Your task to perform on an android device: change keyboard looks Image 0: 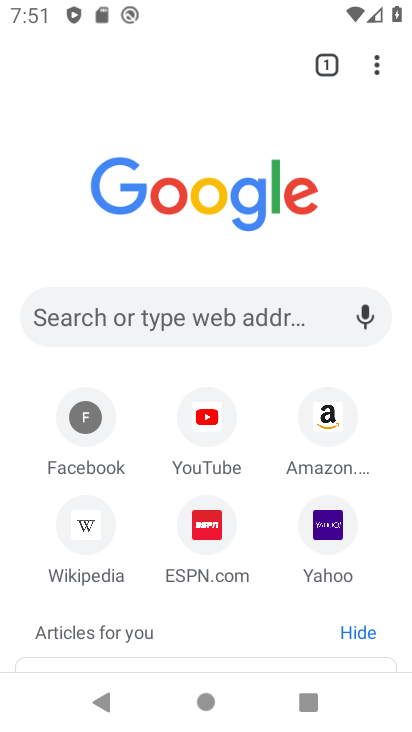
Step 0: press home button
Your task to perform on an android device: change keyboard looks Image 1: 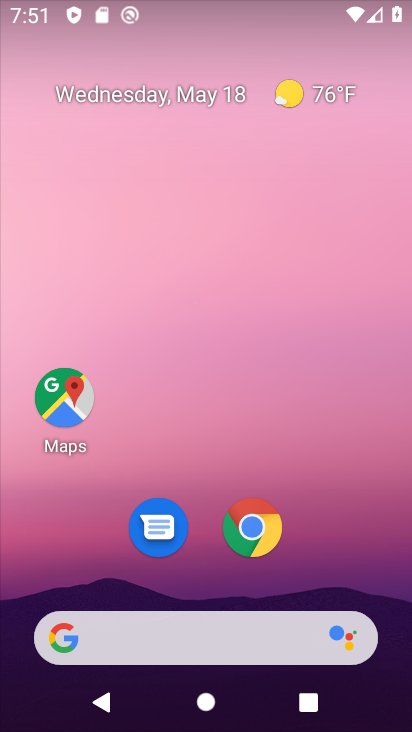
Step 1: drag from (393, 693) to (302, 144)
Your task to perform on an android device: change keyboard looks Image 2: 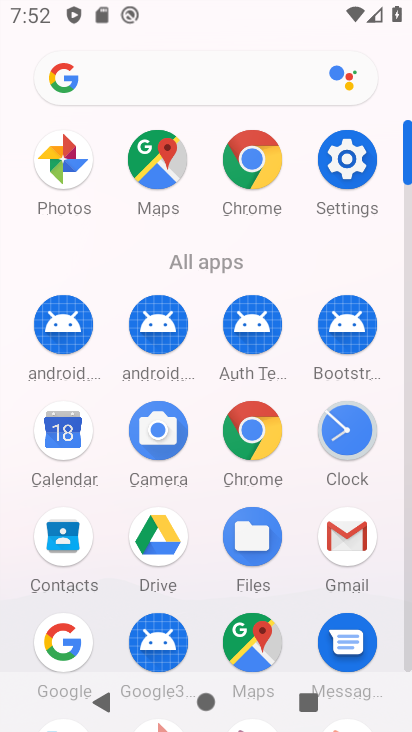
Step 2: click (343, 168)
Your task to perform on an android device: change keyboard looks Image 3: 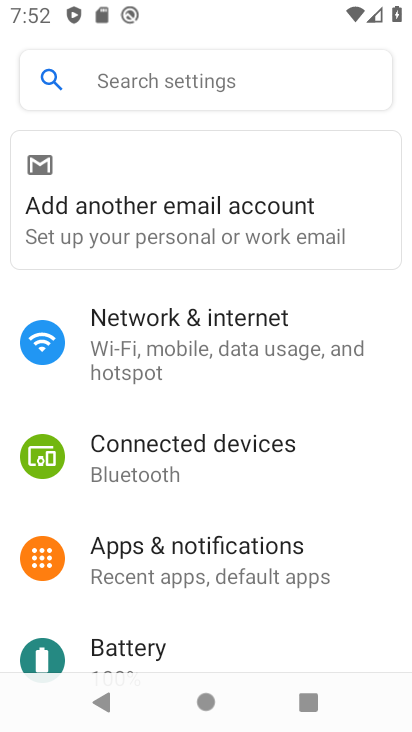
Step 3: drag from (356, 649) to (322, 221)
Your task to perform on an android device: change keyboard looks Image 4: 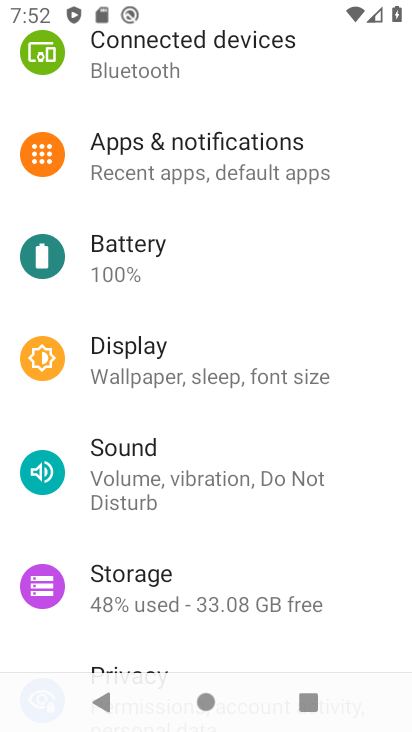
Step 4: drag from (369, 645) to (256, 31)
Your task to perform on an android device: change keyboard looks Image 5: 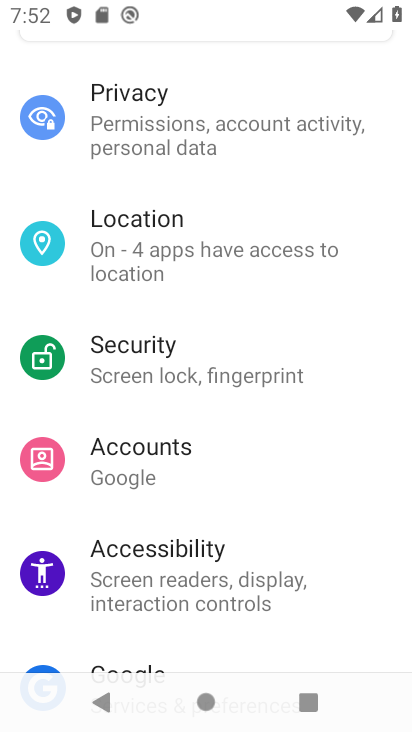
Step 5: drag from (358, 639) to (356, 182)
Your task to perform on an android device: change keyboard looks Image 6: 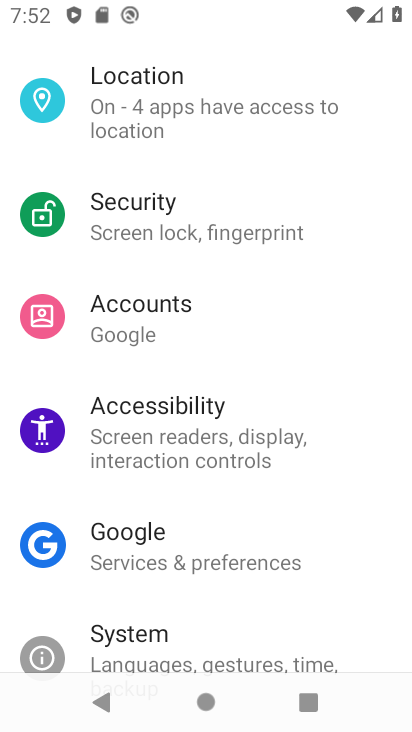
Step 6: click (126, 636)
Your task to perform on an android device: change keyboard looks Image 7: 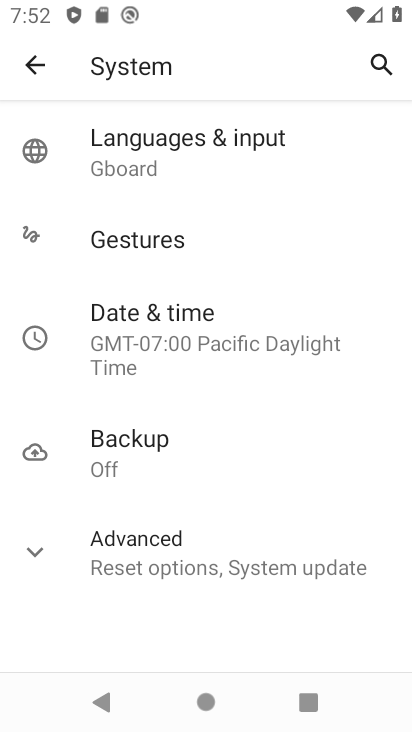
Step 7: click (112, 139)
Your task to perform on an android device: change keyboard looks Image 8: 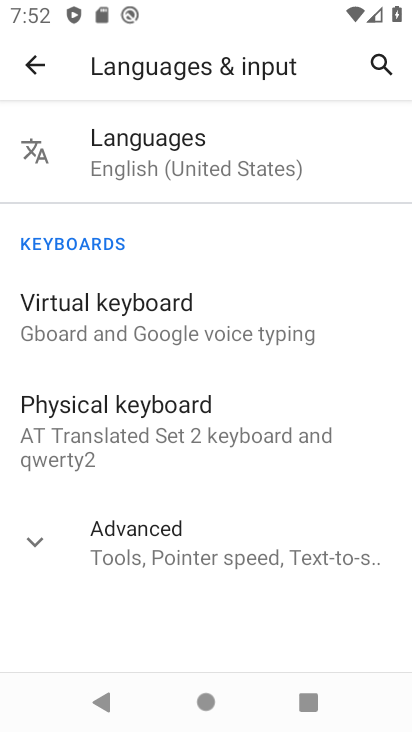
Step 8: click (97, 307)
Your task to perform on an android device: change keyboard looks Image 9: 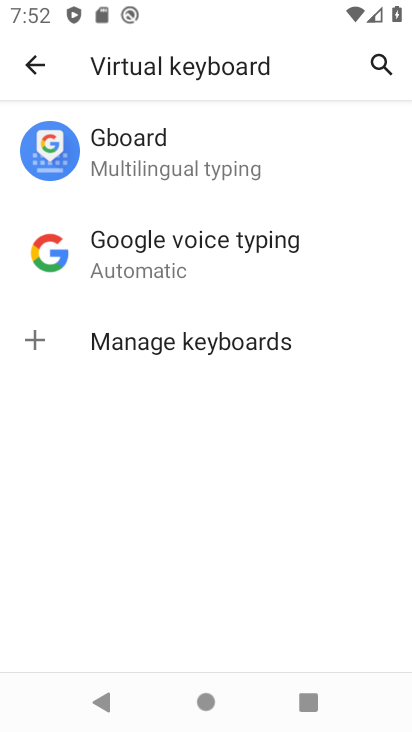
Step 9: click (108, 145)
Your task to perform on an android device: change keyboard looks Image 10: 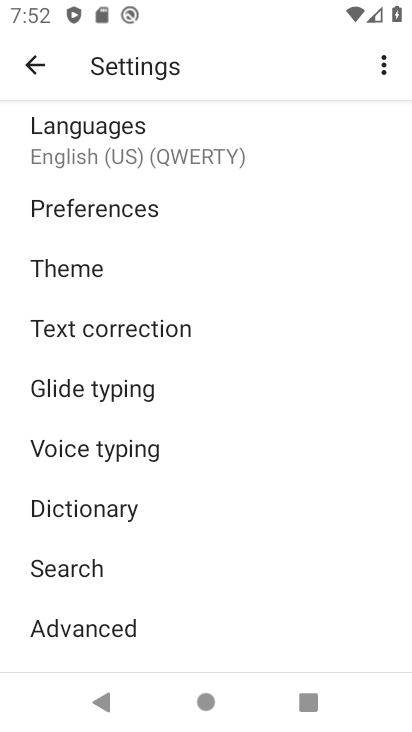
Step 10: drag from (251, 626) to (280, 168)
Your task to perform on an android device: change keyboard looks Image 11: 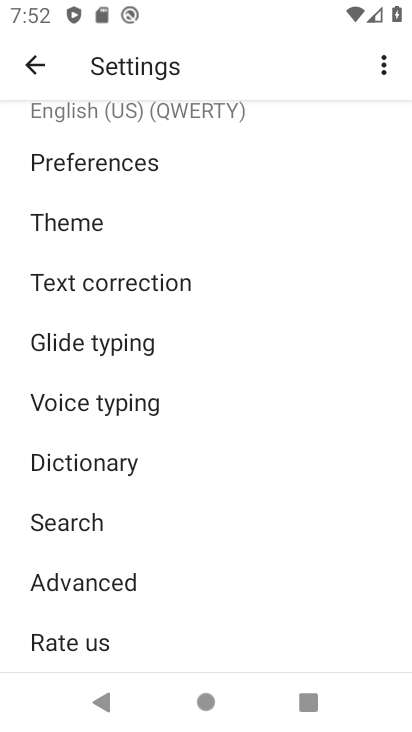
Step 11: click (329, 325)
Your task to perform on an android device: change keyboard looks Image 12: 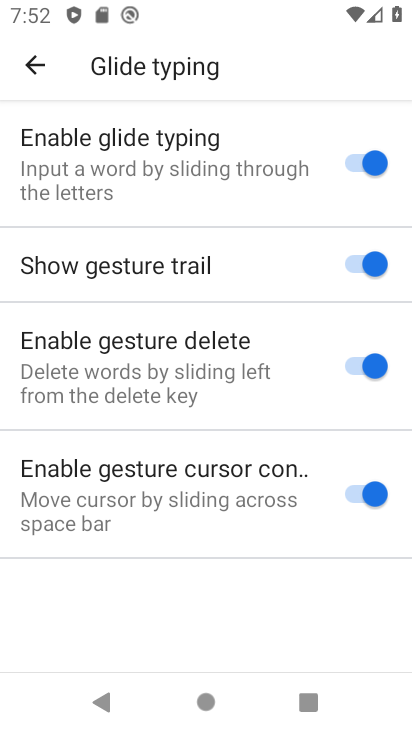
Step 12: click (361, 601)
Your task to perform on an android device: change keyboard looks Image 13: 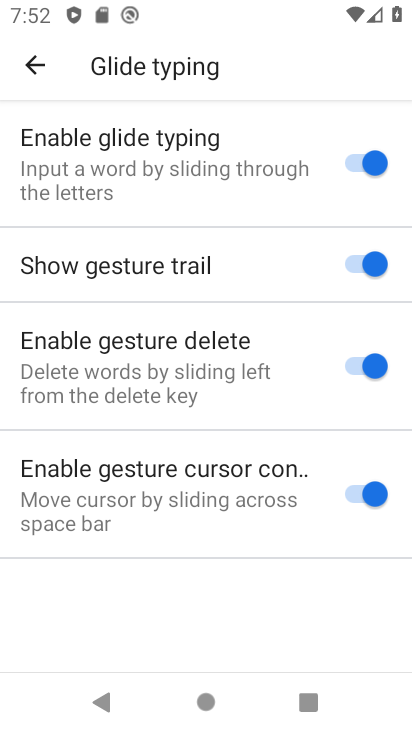
Step 13: click (39, 64)
Your task to perform on an android device: change keyboard looks Image 14: 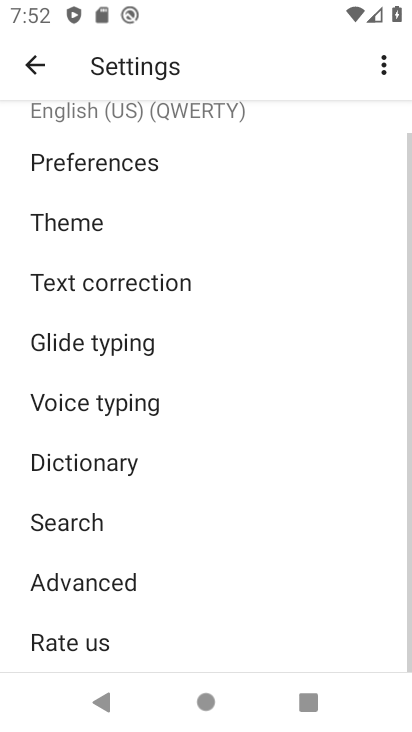
Step 14: click (57, 221)
Your task to perform on an android device: change keyboard looks Image 15: 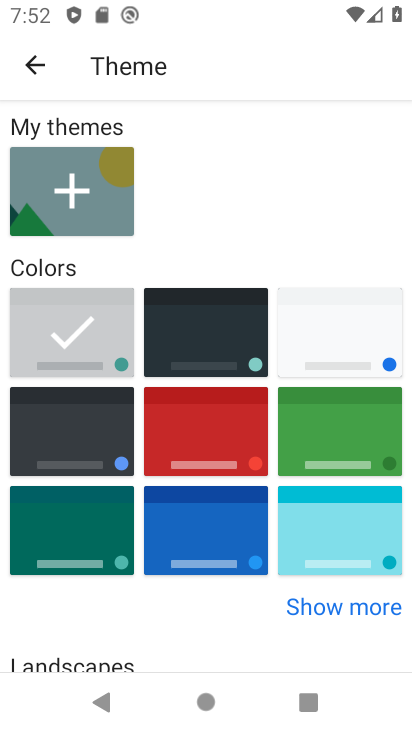
Step 15: click (232, 426)
Your task to perform on an android device: change keyboard looks Image 16: 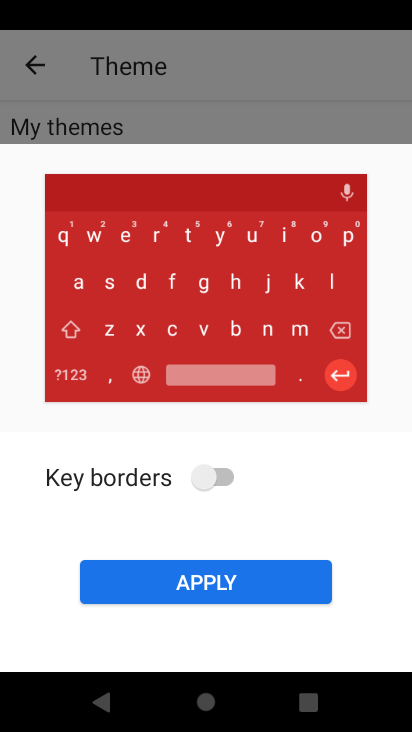
Step 16: click (226, 467)
Your task to perform on an android device: change keyboard looks Image 17: 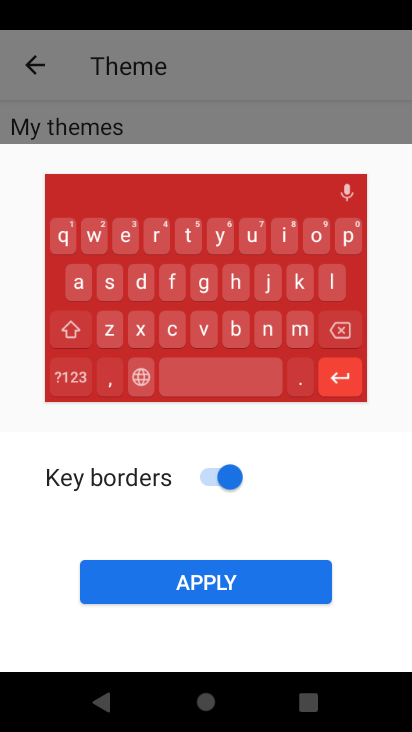
Step 17: click (246, 581)
Your task to perform on an android device: change keyboard looks Image 18: 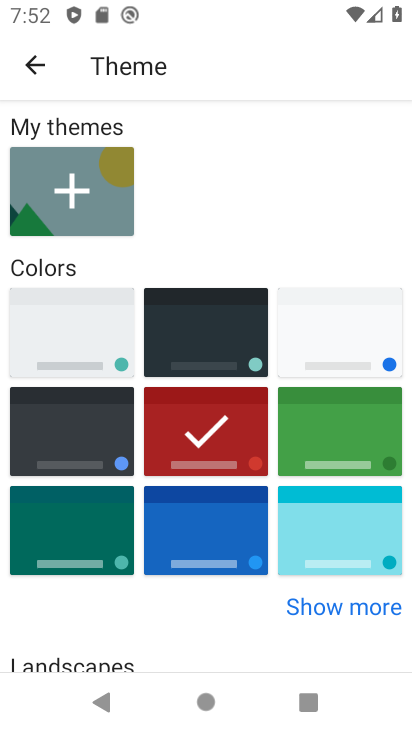
Step 18: task complete